Your task to perform on an android device: set the timer Image 0: 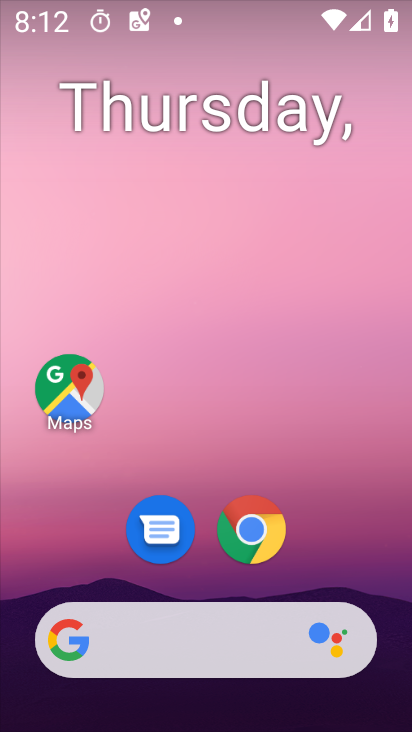
Step 0: drag from (389, 667) to (392, 182)
Your task to perform on an android device: set the timer Image 1: 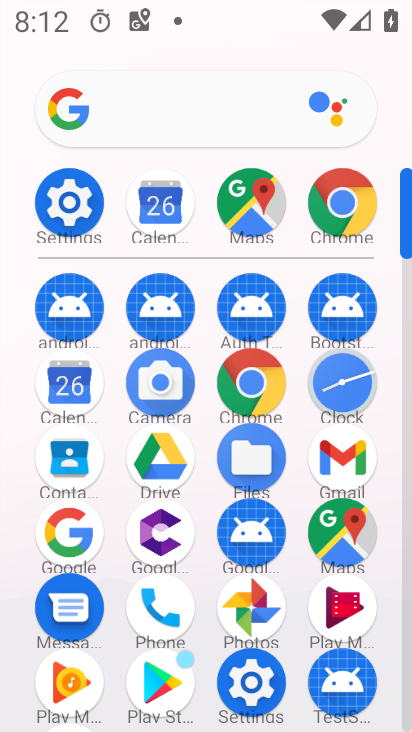
Step 1: click (322, 386)
Your task to perform on an android device: set the timer Image 2: 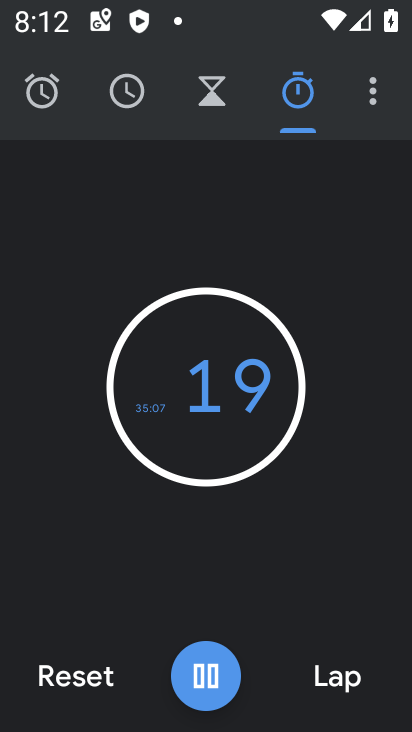
Step 2: click (67, 684)
Your task to perform on an android device: set the timer Image 3: 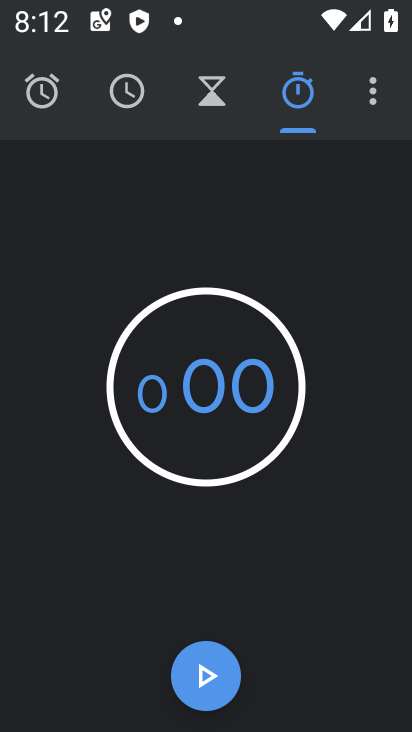
Step 3: click (220, 689)
Your task to perform on an android device: set the timer Image 4: 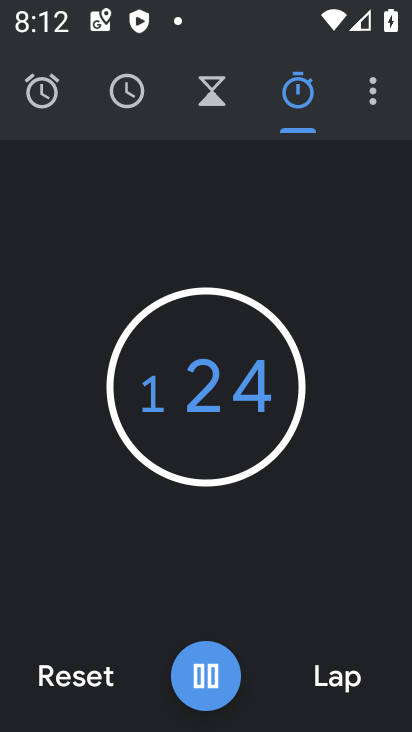
Step 4: task complete